Your task to perform on an android device: Go to Yahoo.com Image 0: 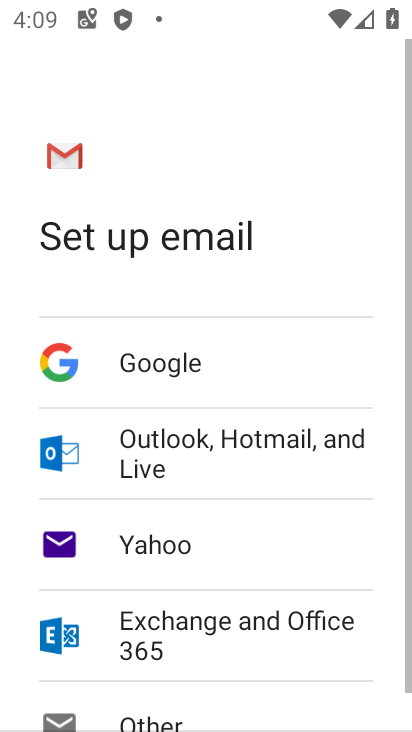
Step 0: press back button
Your task to perform on an android device: Go to Yahoo.com Image 1: 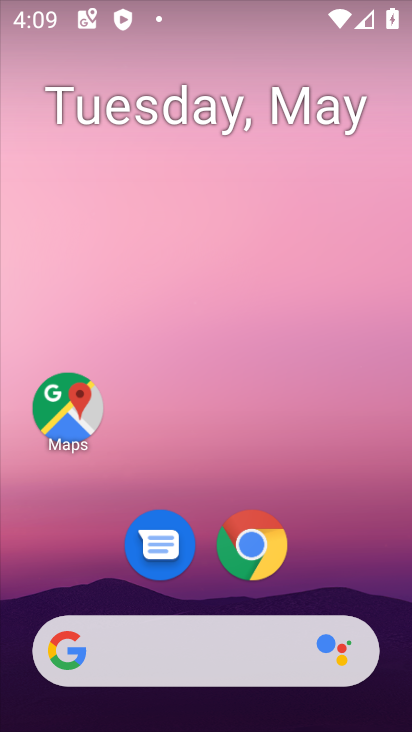
Step 1: click (253, 541)
Your task to perform on an android device: Go to Yahoo.com Image 2: 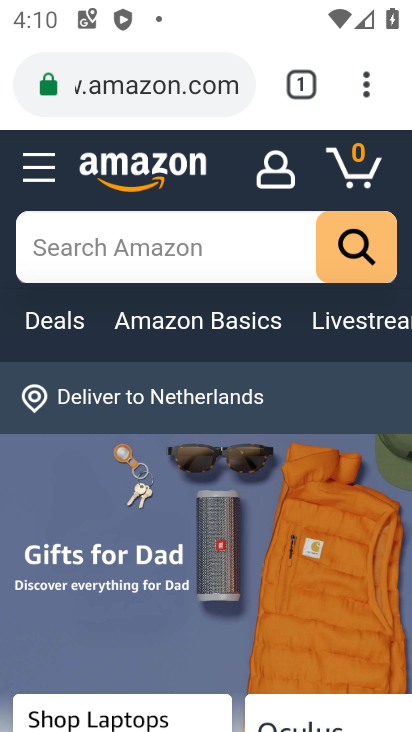
Step 2: click (228, 83)
Your task to perform on an android device: Go to Yahoo.com Image 3: 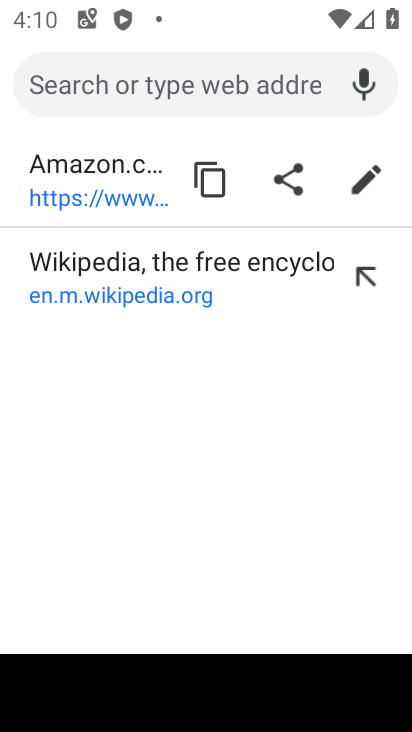
Step 3: type "Yahoo.com"
Your task to perform on an android device: Go to Yahoo.com Image 4: 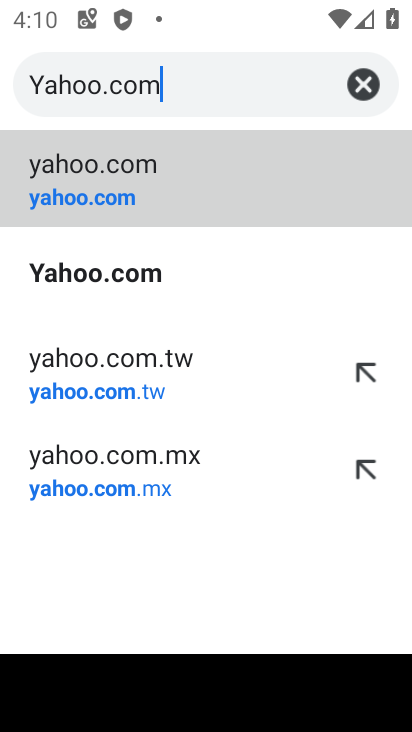
Step 4: click (105, 276)
Your task to perform on an android device: Go to Yahoo.com Image 5: 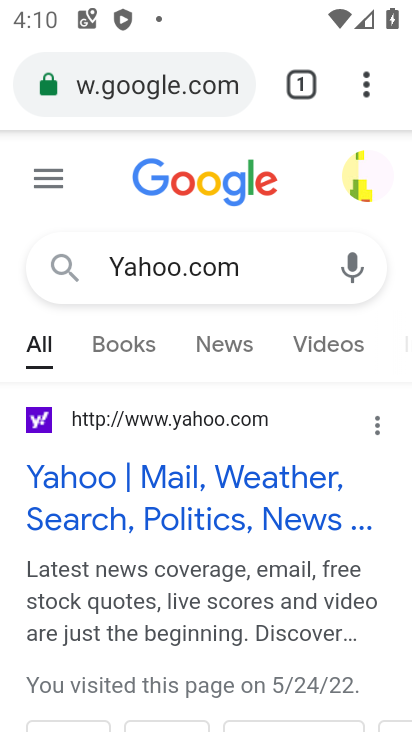
Step 5: click (168, 495)
Your task to perform on an android device: Go to Yahoo.com Image 6: 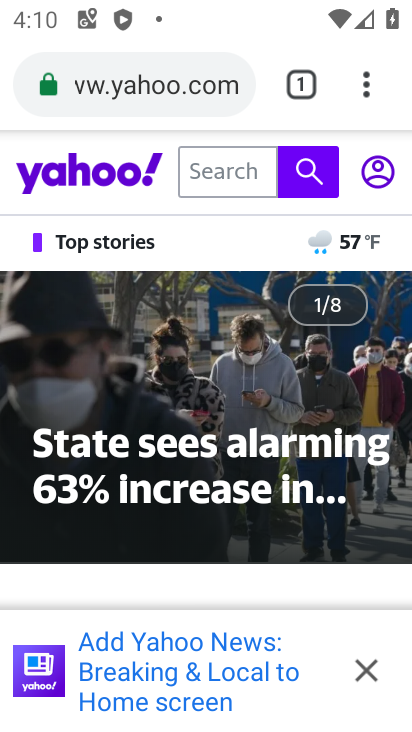
Step 6: task complete